Your task to perform on an android device: Go to eBay Image 0: 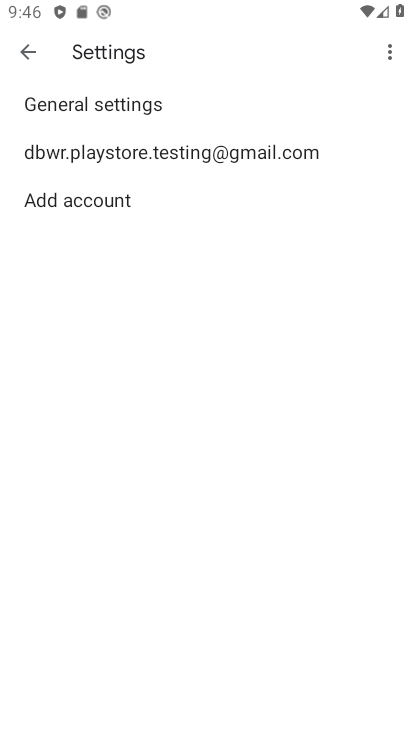
Step 0: press home button
Your task to perform on an android device: Go to eBay Image 1: 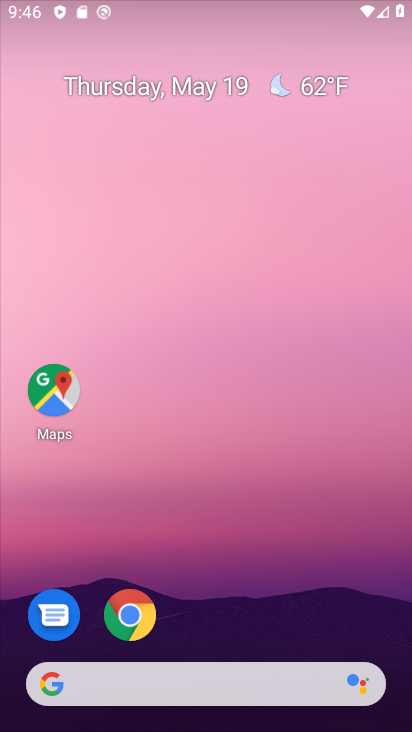
Step 1: click (105, 637)
Your task to perform on an android device: Go to eBay Image 2: 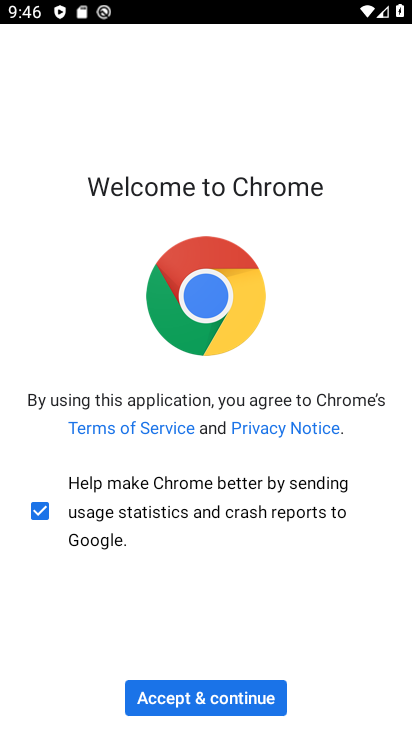
Step 2: click (256, 693)
Your task to perform on an android device: Go to eBay Image 3: 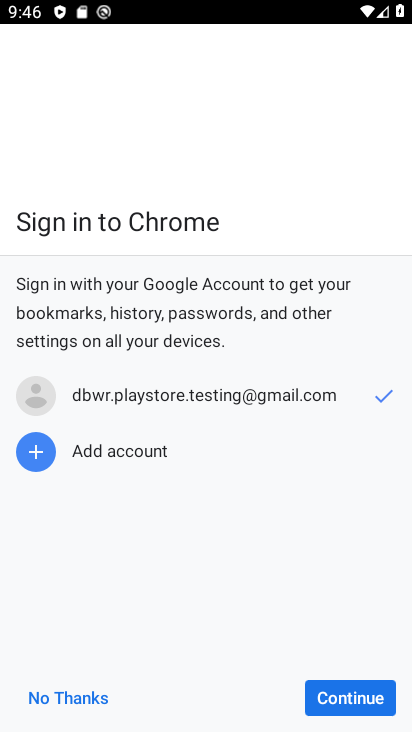
Step 3: click (370, 698)
Your task to perform on an android device: Go to eBay Image 4: 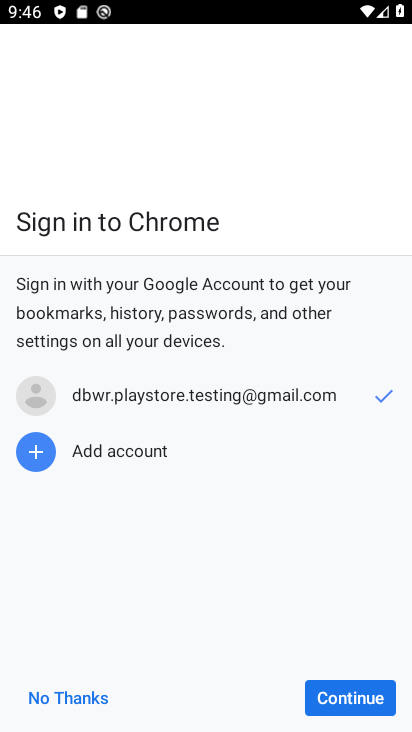
Step 4: click (369, 697)
Your task to perform on an android device: Go to eBay Image 5: 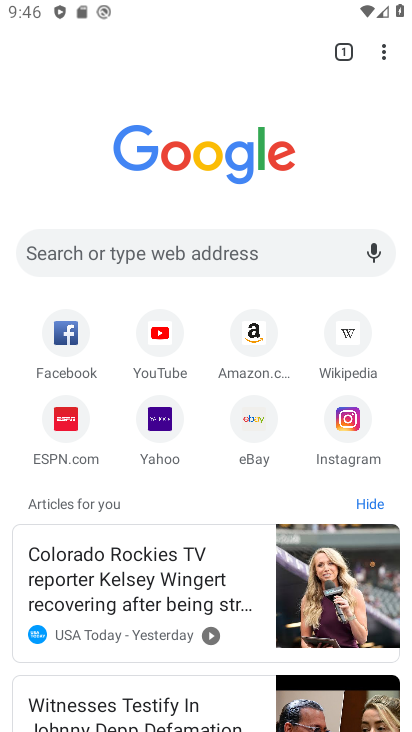
Step 5: click (243, 437)
Your task to perform on an android device: Go to eBay Image 6: 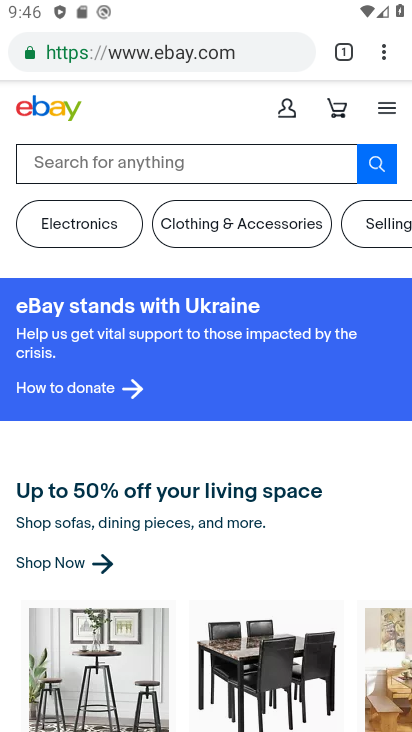
Step 6: task complete